Your task to perform on an android device: delete location history Image 0: 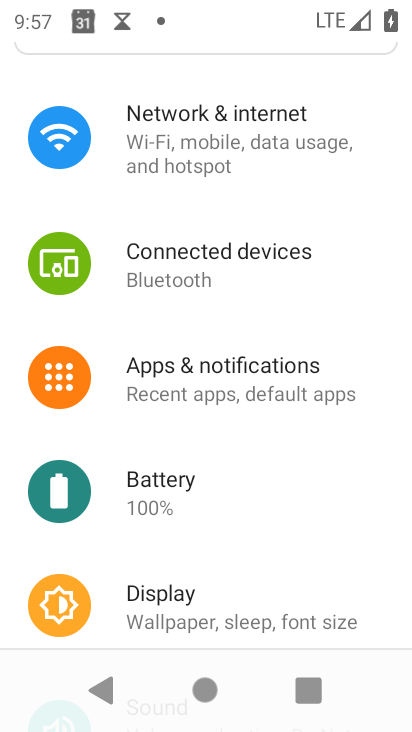
Step 0: drag from (219, 538) to (235, 433)
Your task to perform on an android device: delete location history Image 1: 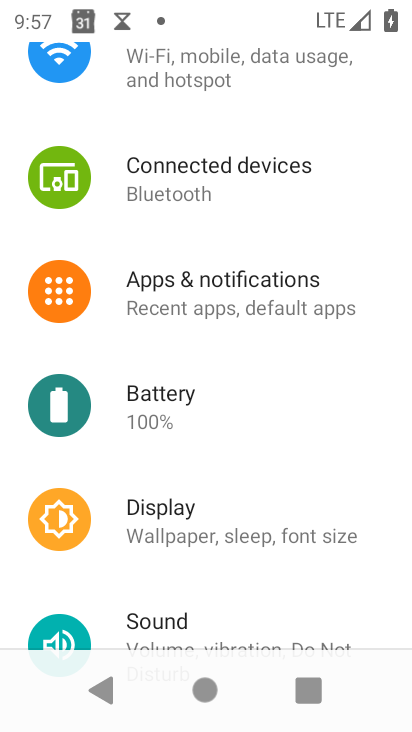
Step 1: press home button
Your task to perform on an android device: delete location history Image 2: 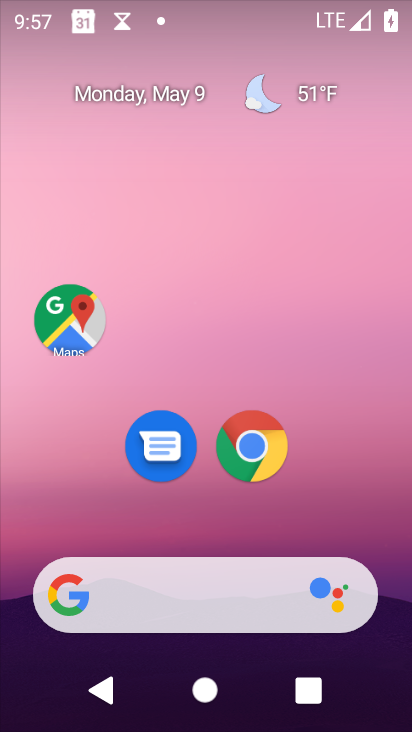
Step 2: click (64, 311)
Your task to perform on an android device: delete location history Image 3: 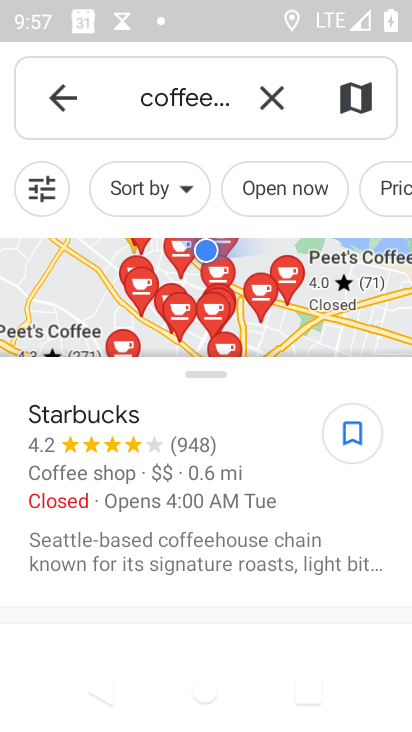
Step 3: click (51, 97)
Your task to perform on an android device: delete location history Image 4: 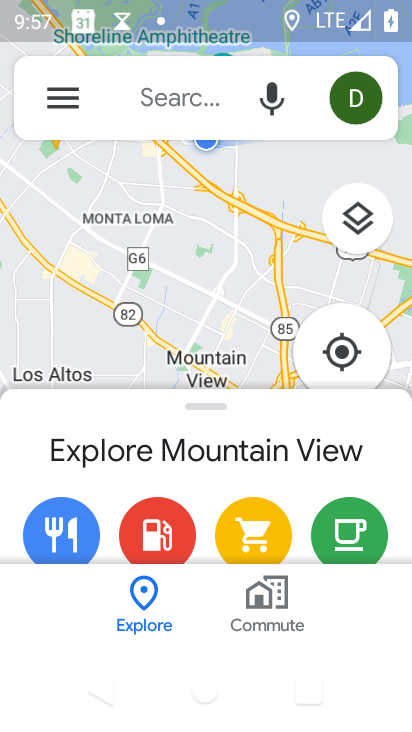
Step 4: click (61, 105)
Your task to perform on an android device: delete location history Image 5: 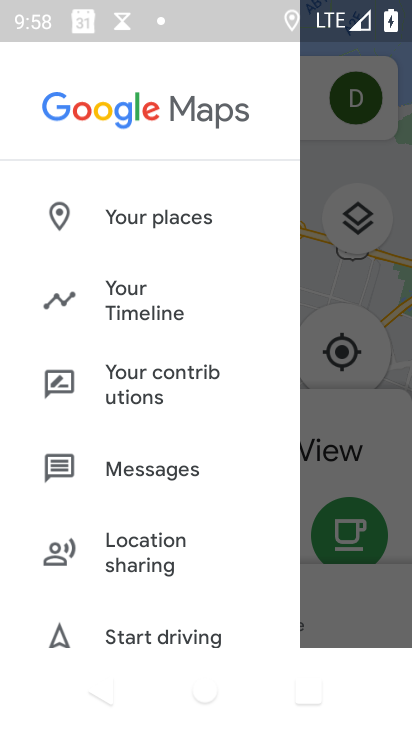
Step 5: click (156, 301)
Your task to perform on an android device: delete location history Image 6: 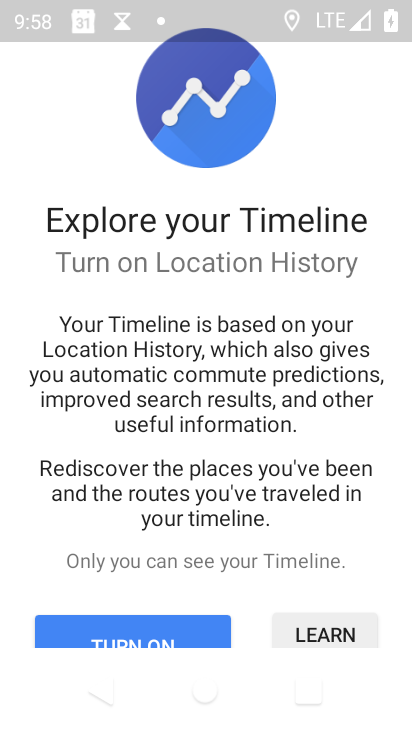
Step 6: click (207, 626)
Your task to perform on an android device: delete location history Image 7: 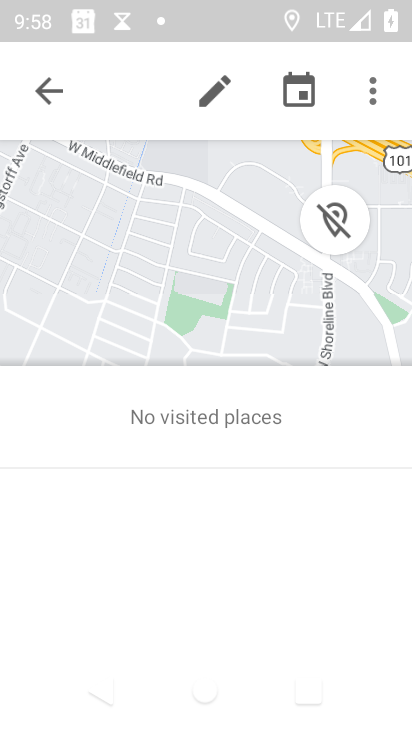
Step 7: click (375, 102)
Your task to perform on an android device: delete location history Image 8: 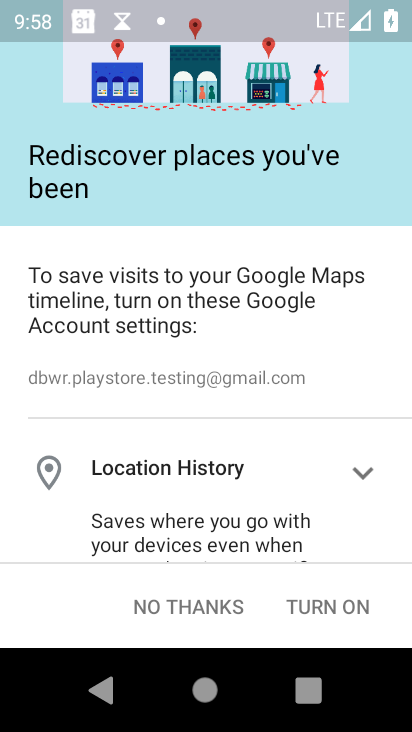
Step 8: drag from (243, 536) to (249, 225)
Your task to perform on an android device: delete location history Image 9: 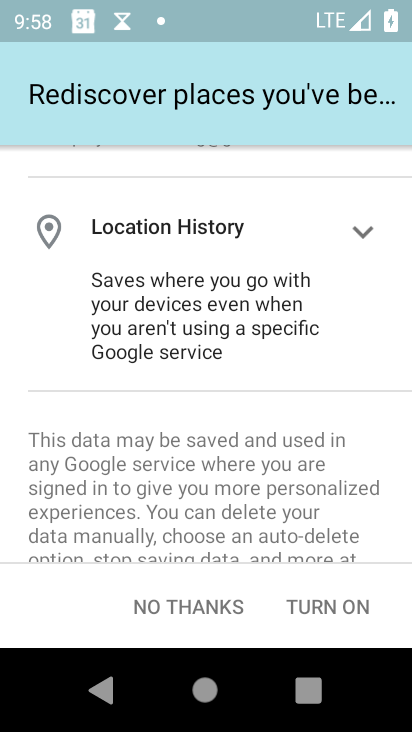
Step 9: drag from (264, 504) to (266, 288)
Your task to perform on an android device: delete location history Image 10: 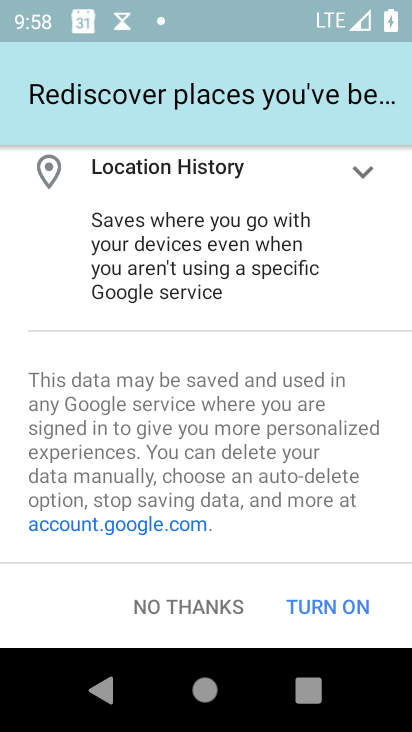
Step 10: click (326, 602)
Your task to perform on an android device: delete location history Image 11: 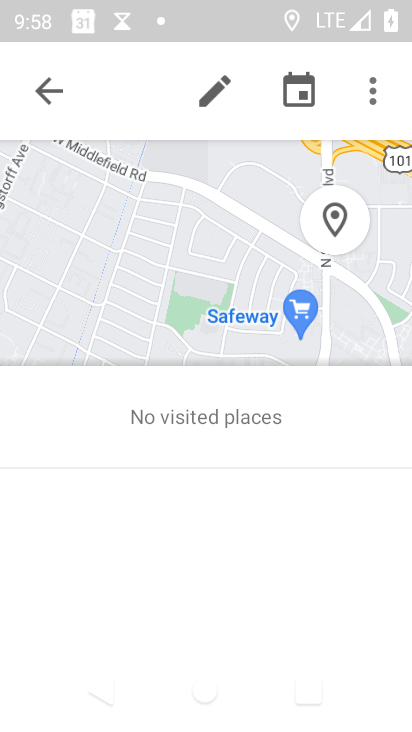
Step 11: click (380, 95)
Your task to perform on an android device: delete location history Image 12: 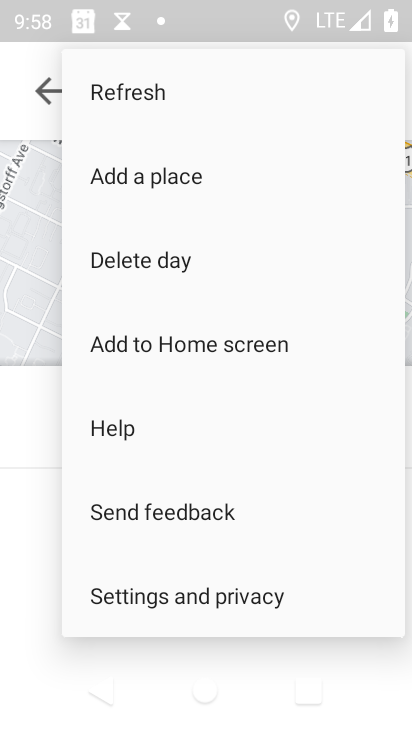
Step 12: click (218, 593)
Your task to perform on an android device: delete location history Image 13: 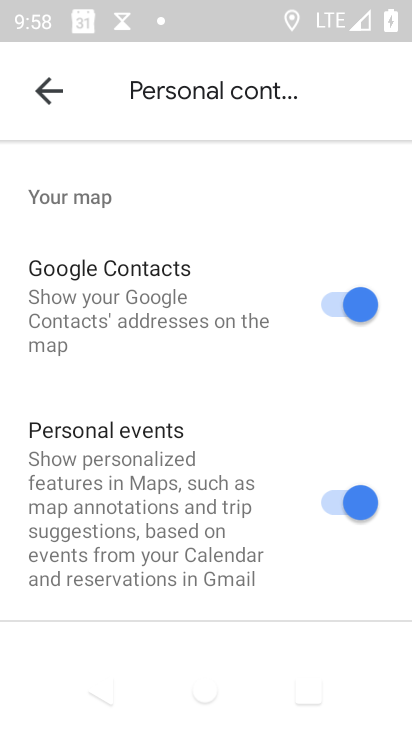
Step 13: drag from (242, 574) to (240, 280)
Your task to perform on an android device: delete location history Image 14: 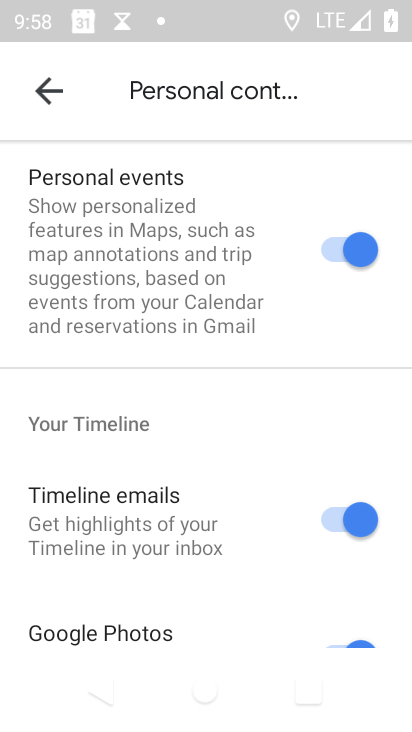
Step 14: drag from (218, 596) to (232, 264)
Your task to perform on an android device: delete location history Image 15: 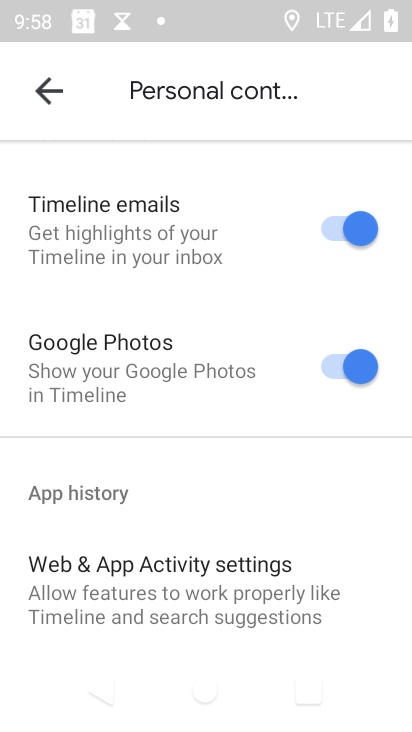
Step 15: drag from (211, 610) to (237, 282)
Your task to perform on an android device: delete location history Image 16: 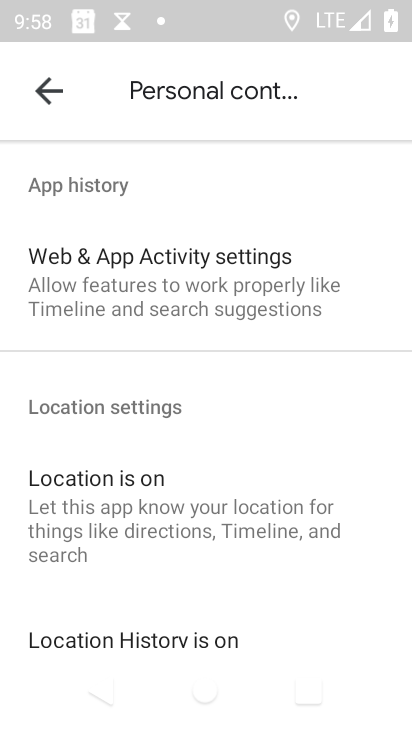
Step 16: drag from (218, 589) to (221, 308)
Your task to perform on an android device: delete location history Image 17: 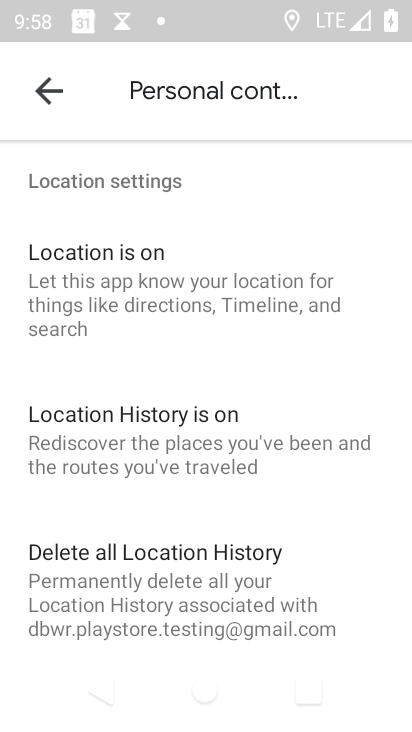
Step 17: click (196, 588)
Your task to perform on an android device: delete location history Image 18: 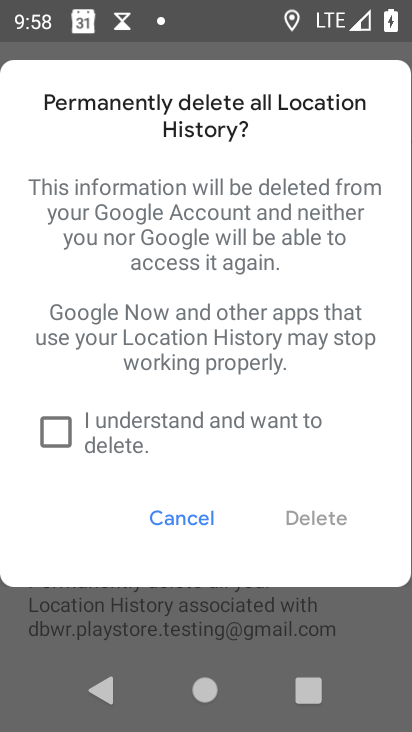
Step 18: click (62, 427)
Your task to perform on an android device: delete location history Image 19: 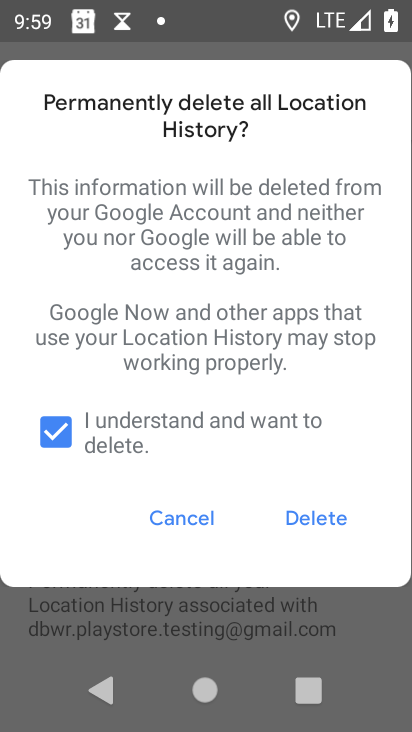
Step 19: click (319, 515)
Your task to perform on an android device: delete location history Image 20: 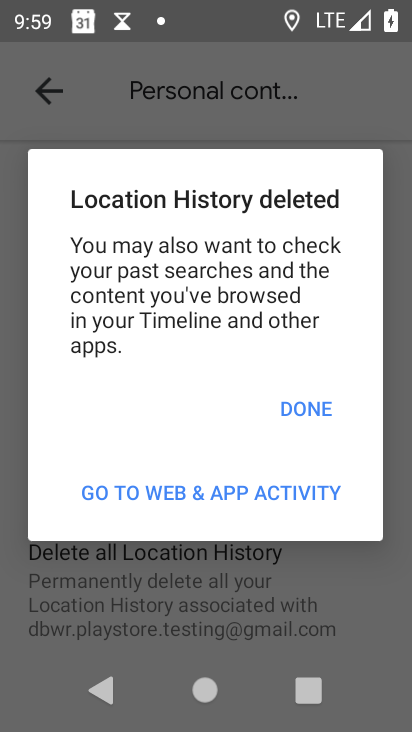
Step 20: click (298, 407)
Your task to perform on an android device: delete location history Image 21: 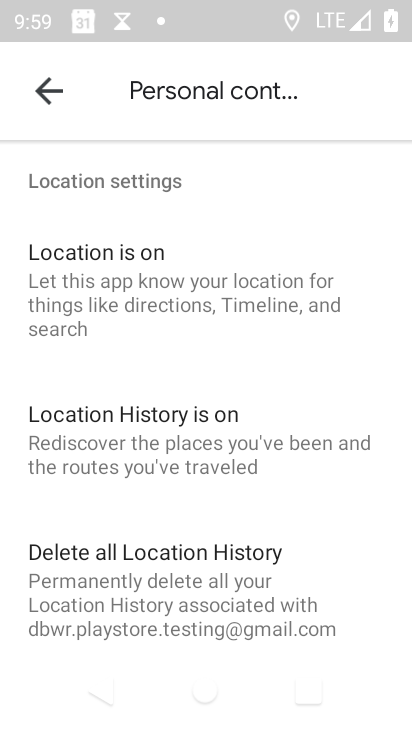
Step 21: task complete